Your task to perform on an android device: Open calendar and show me the third week of next month Image 0: 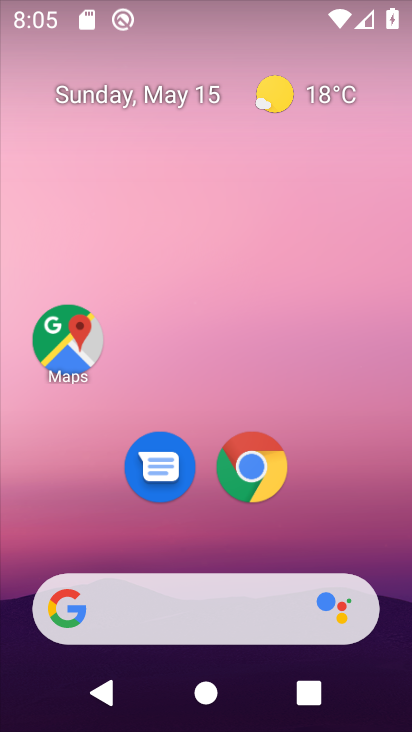
Step 0: drag from (225, 534) to (257, 61)
Your task to perform on an android device: Open calendar and show me the third week of next month Image 1: 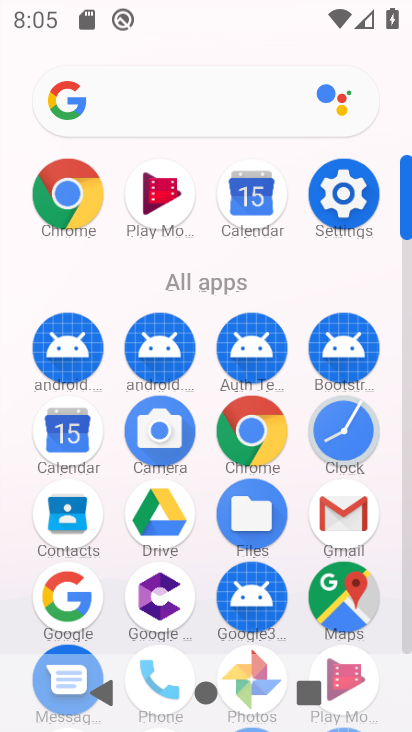
Step 1: click (56, 443)
Your task to perform on an android device: Open calendar and show me the third week of next month Image 2: 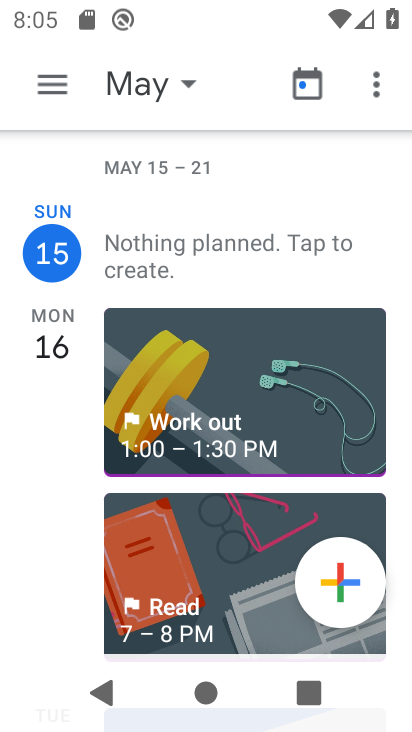
Step 2: click (150, 82)
Your task to perform on an android device: Open calendar and show me the third week of next month Image 3: 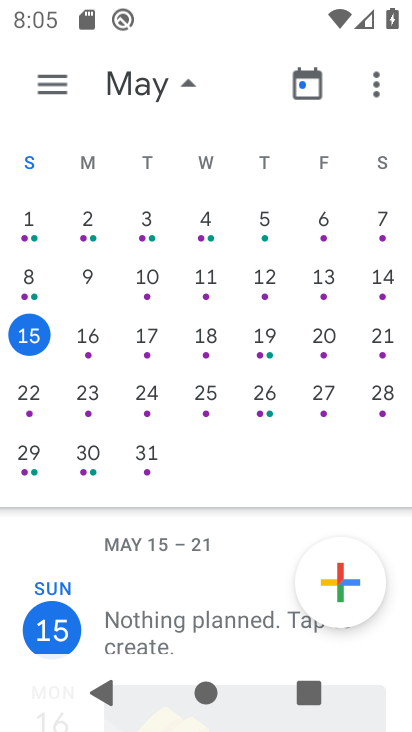
Step 3: drag from (350, 300) to (33, 271)
Your task to perform on an android device: Open calendar and show me the third week of next month Image 4: 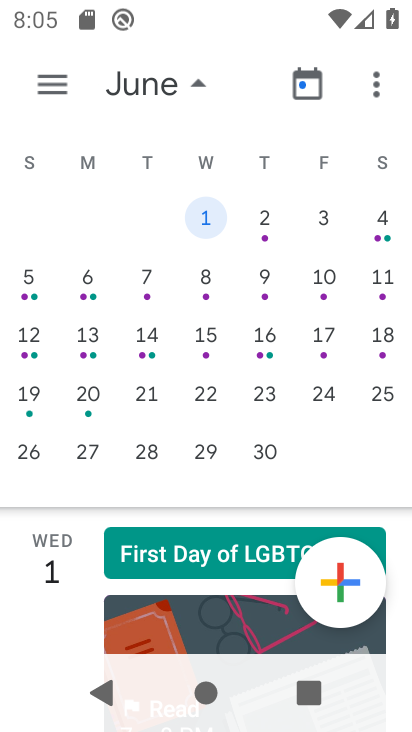
Step 4: click (40, 351)
Your task to perform on an android device: Open calendar and show me the third week of next month Image 5: 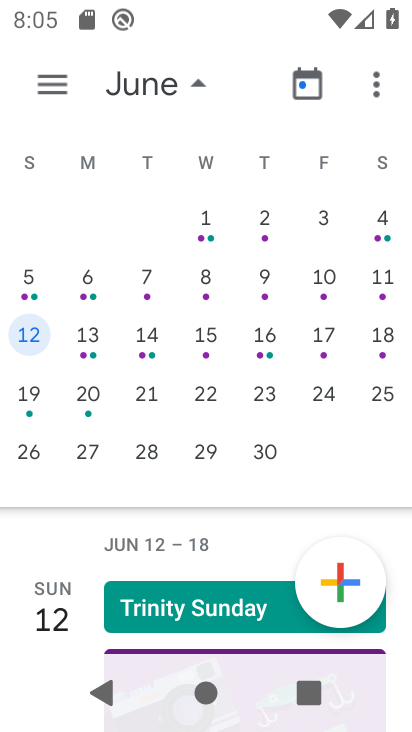
Step 5: task complete